Your task to perform on an android device: Open the calendar app, open the side menu, and click the "Day" option Image 0: 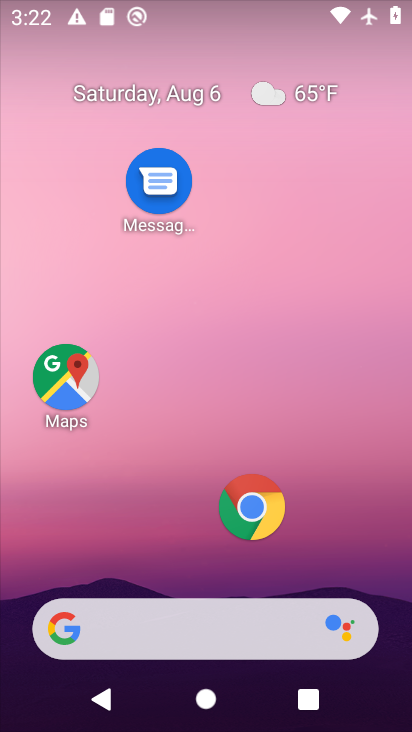
Step 0: drag from (184, 525) to (205, 247)
Your task to perform on an android device: Open the calendar app, open the side menu, and click the "Day" option Image 1: 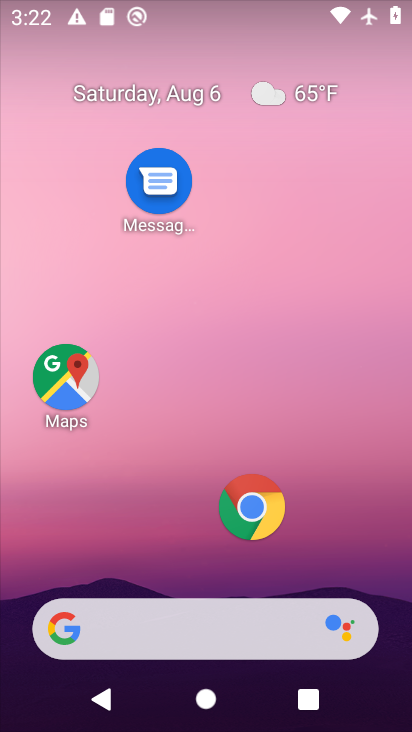
Step 1: drag from (189, 569) to (205, 6)
Your task to perform on an android device: Open the calendar app, open the side menu, and click the "Day" option Image 2: 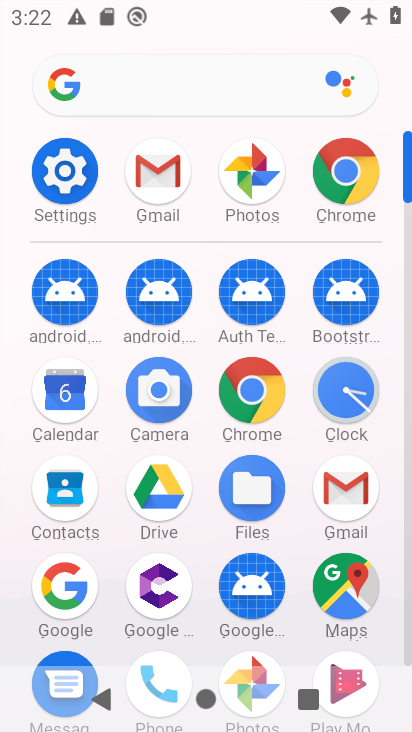
Step 2: click (68, 402)
Your task to perform on an android device: Open the calendar app, open the side menu, and click the "Day" option Image 3: 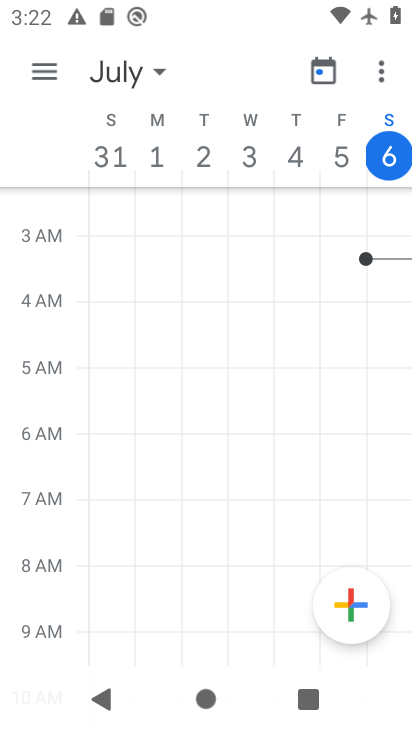
Step 3: click (33, 71)
Your task to perform on an android device: Open the calendar app, open the side menu, and click the "Day" option Image 4: 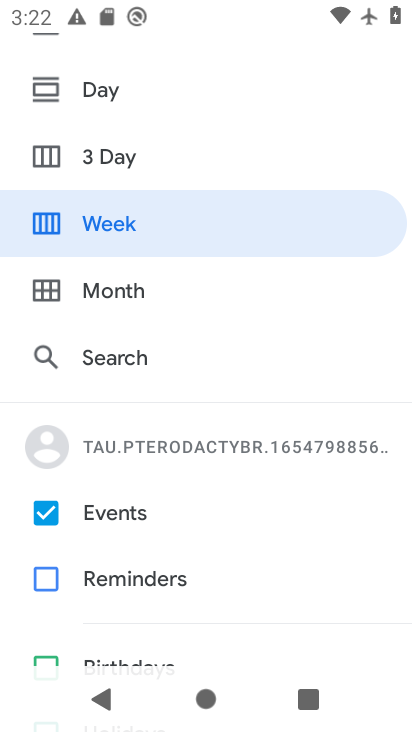
Step 4: click (114, 97)
Your task to perform on an android device: Open the calendar app, open the side menu, and click the "Day" option Image 5: 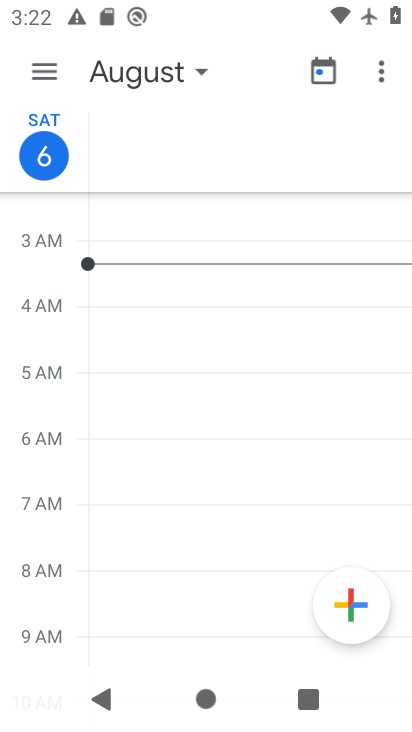
Step 5: task complete